Your task to perform on an android device: What's the latest video from GameSpot Reviews? Image 0: 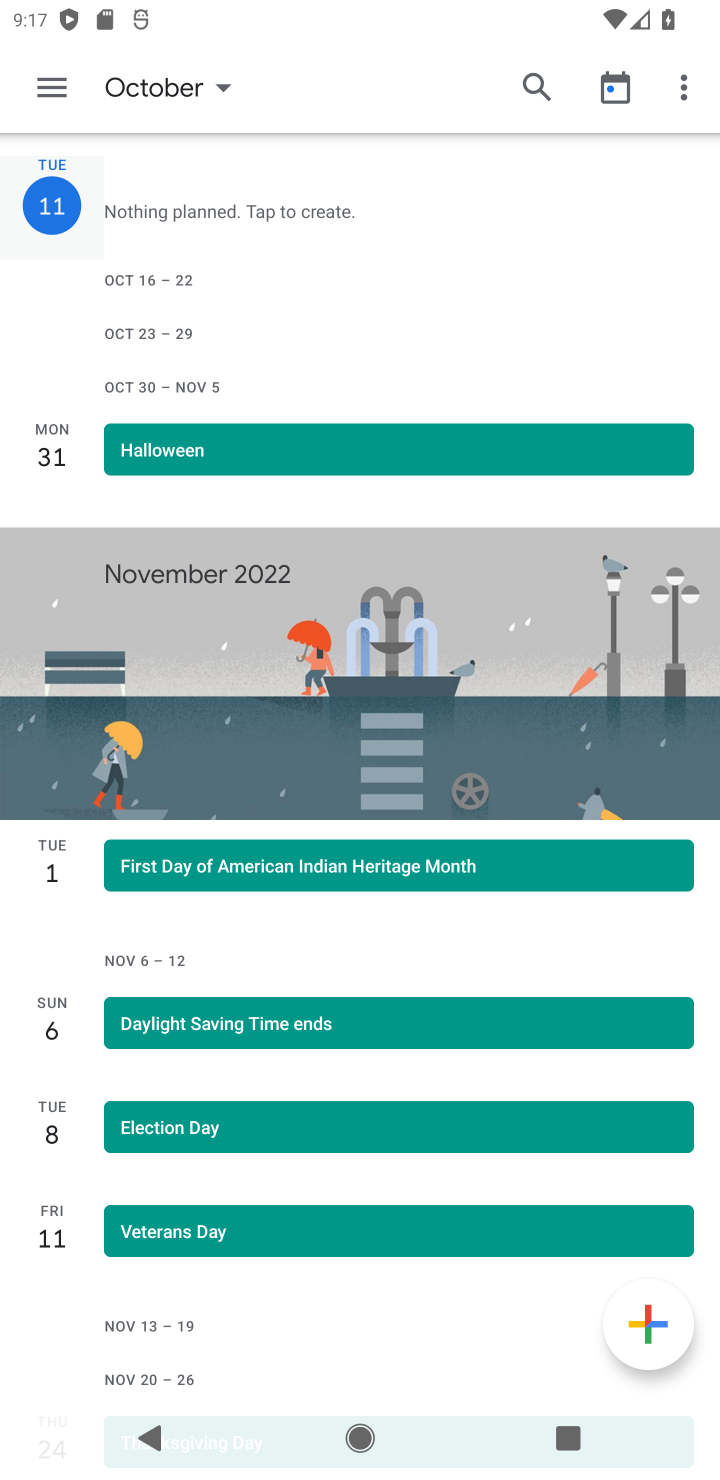
Step 0: press home button
Your task to perform on an android device: What's the latest video from GameSpot Reviews? Image 1: 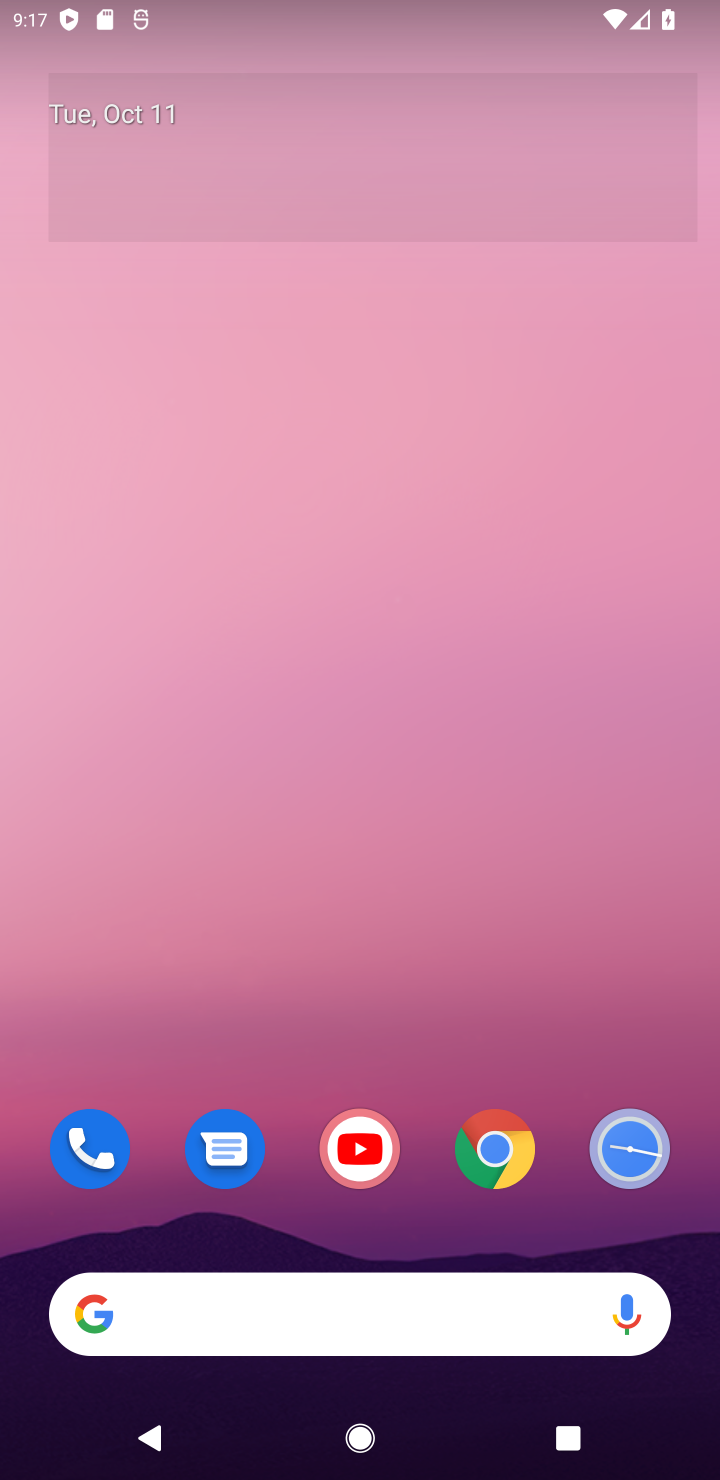
Step 1: drag from (418, 1064) to (691, 10)
Your task to perform on an android device: What's the latest video from GameSpot Reviews? Image 2: 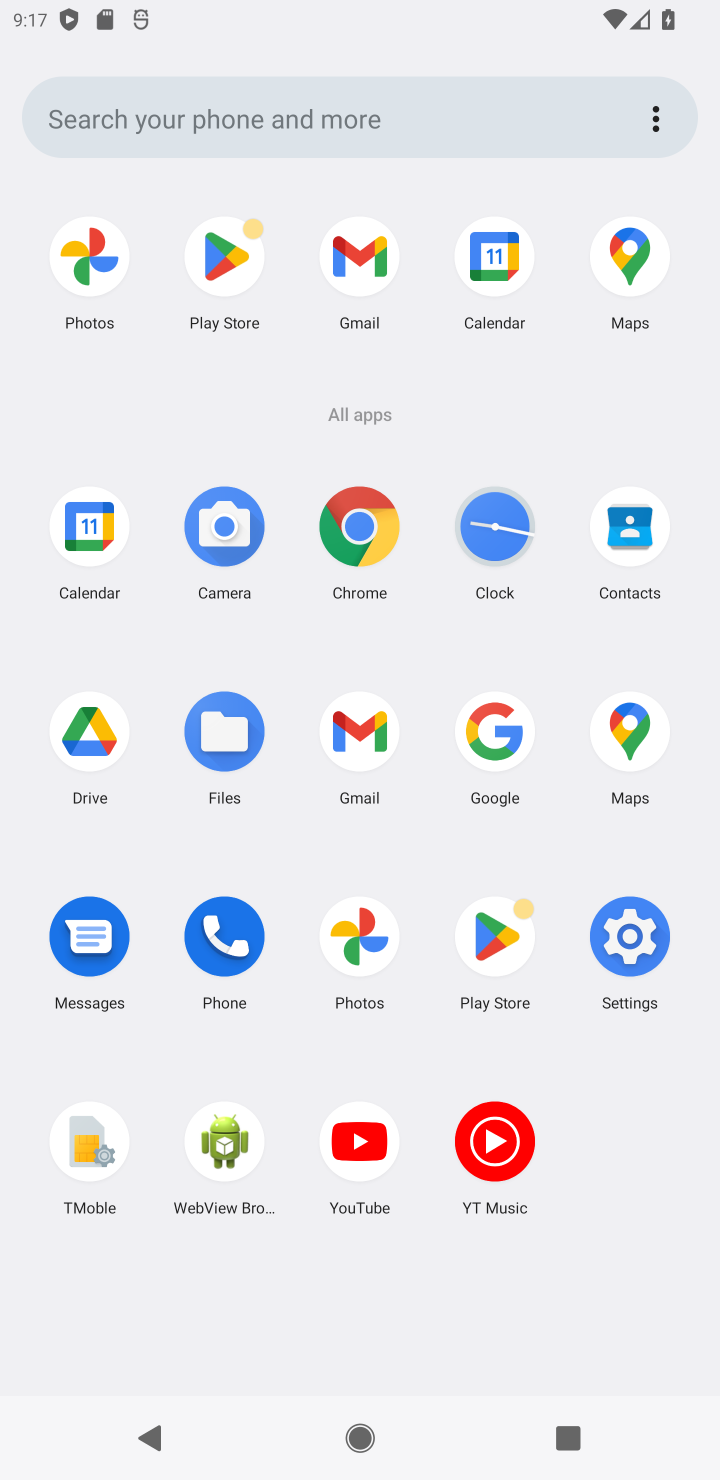
Step 2: click (371, 539)
Your task to perform on an android device: What's the latest video from GameSpot Reviews? Image 3: 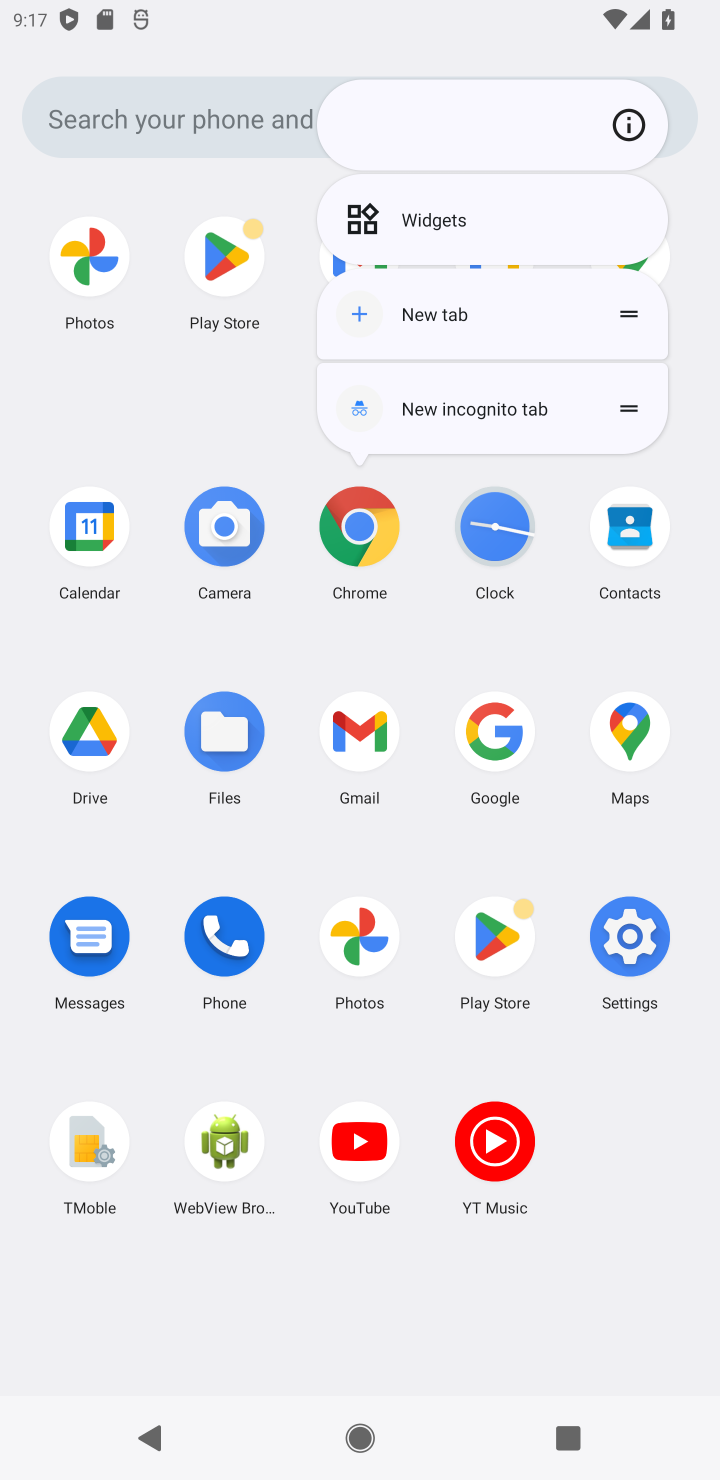
Step 3: click (364, 535)
Your task to perform on an android device: What's the latest video from GameSpot Reviews? Image 4: 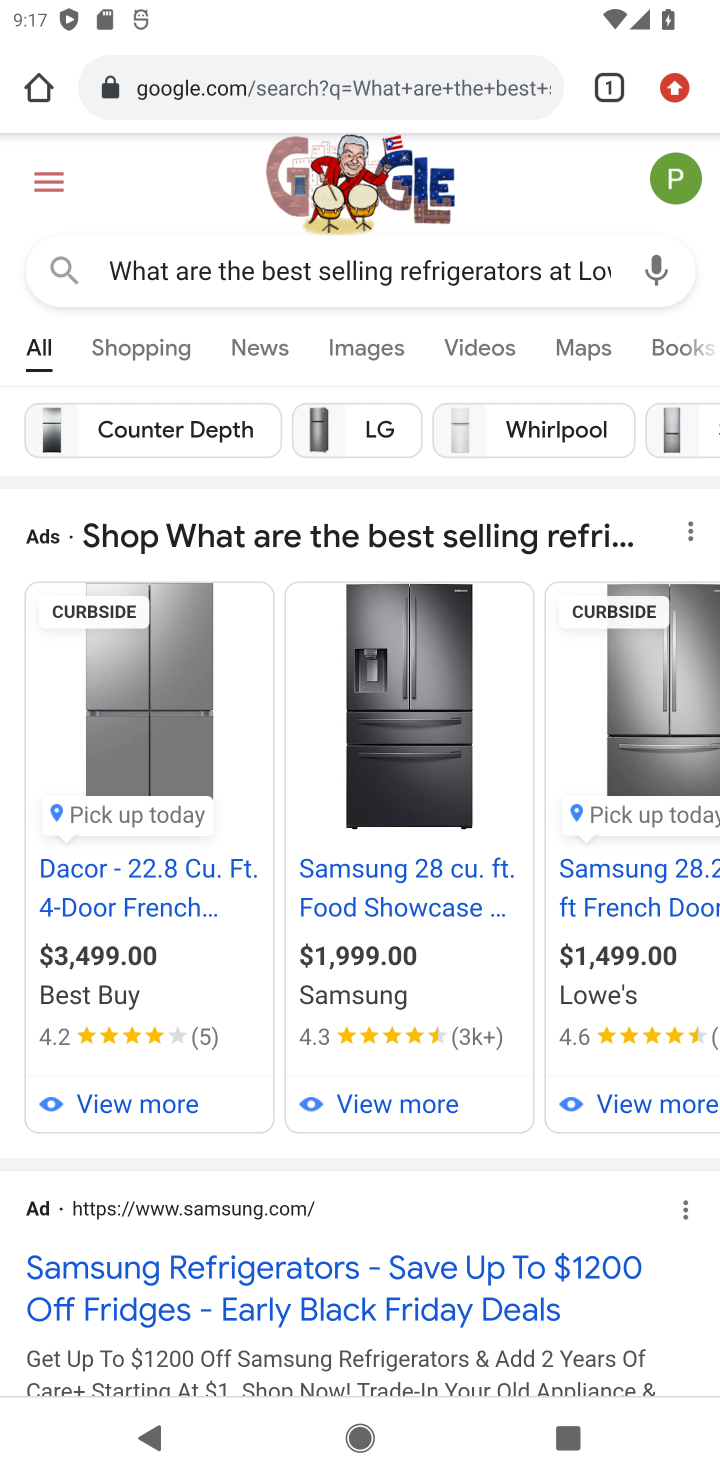
Step 4: click (405, 79)
Your task to perform on an android device: What's the latest video from GameSpot Reviews? Image 5: 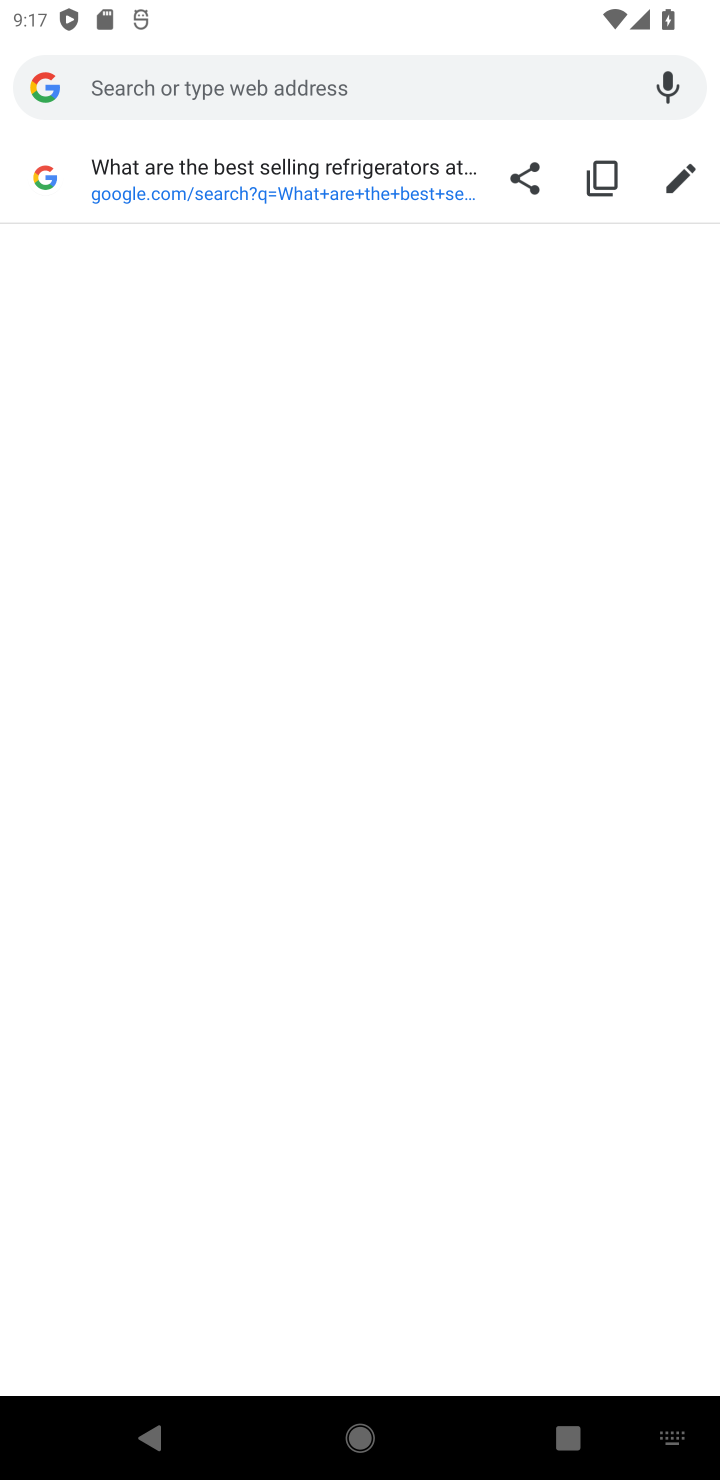
Step 5: press home button
Your task to perform on an android device: What's the latest video from GameSpot Reviews? Image 6: 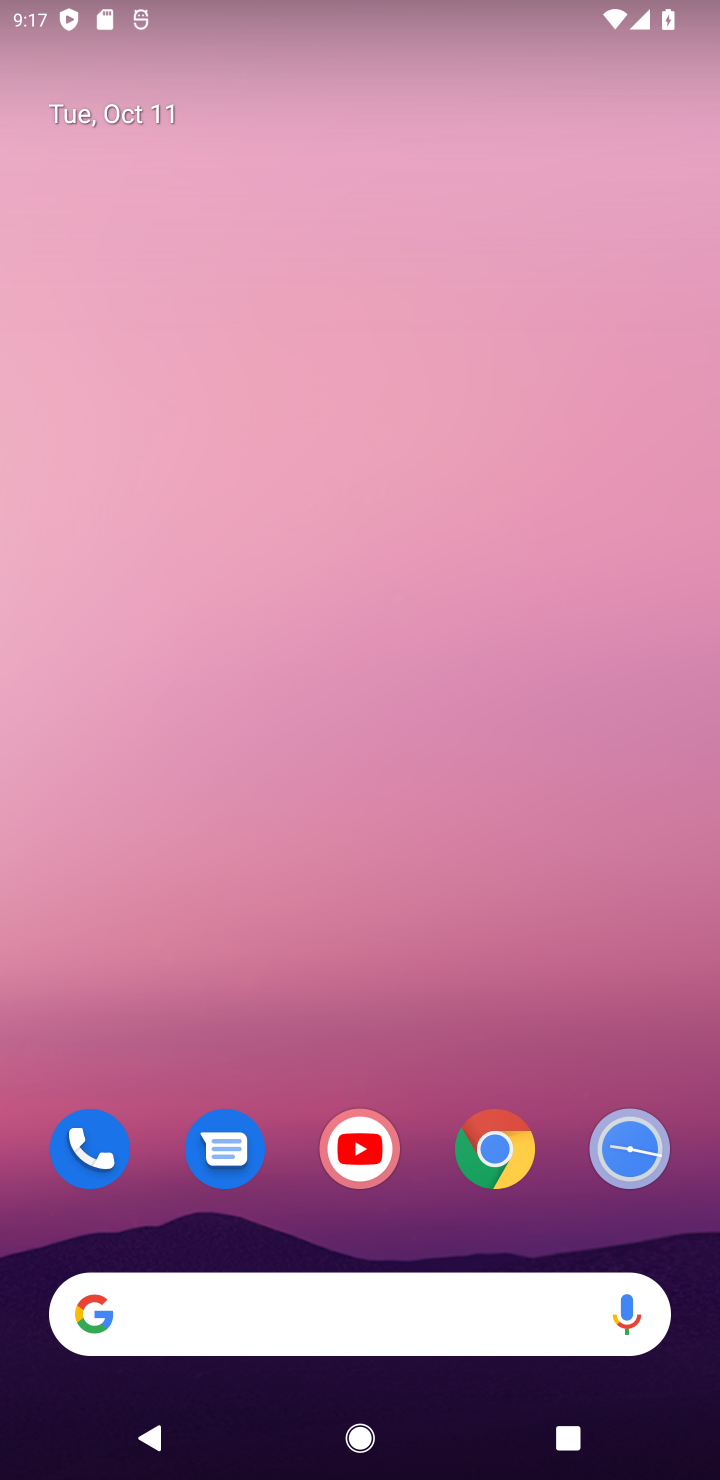
Step 6: click (360, 1160)
Your task to perform on an android device: What's the latest video from GameSpot Reviews? Image 7: 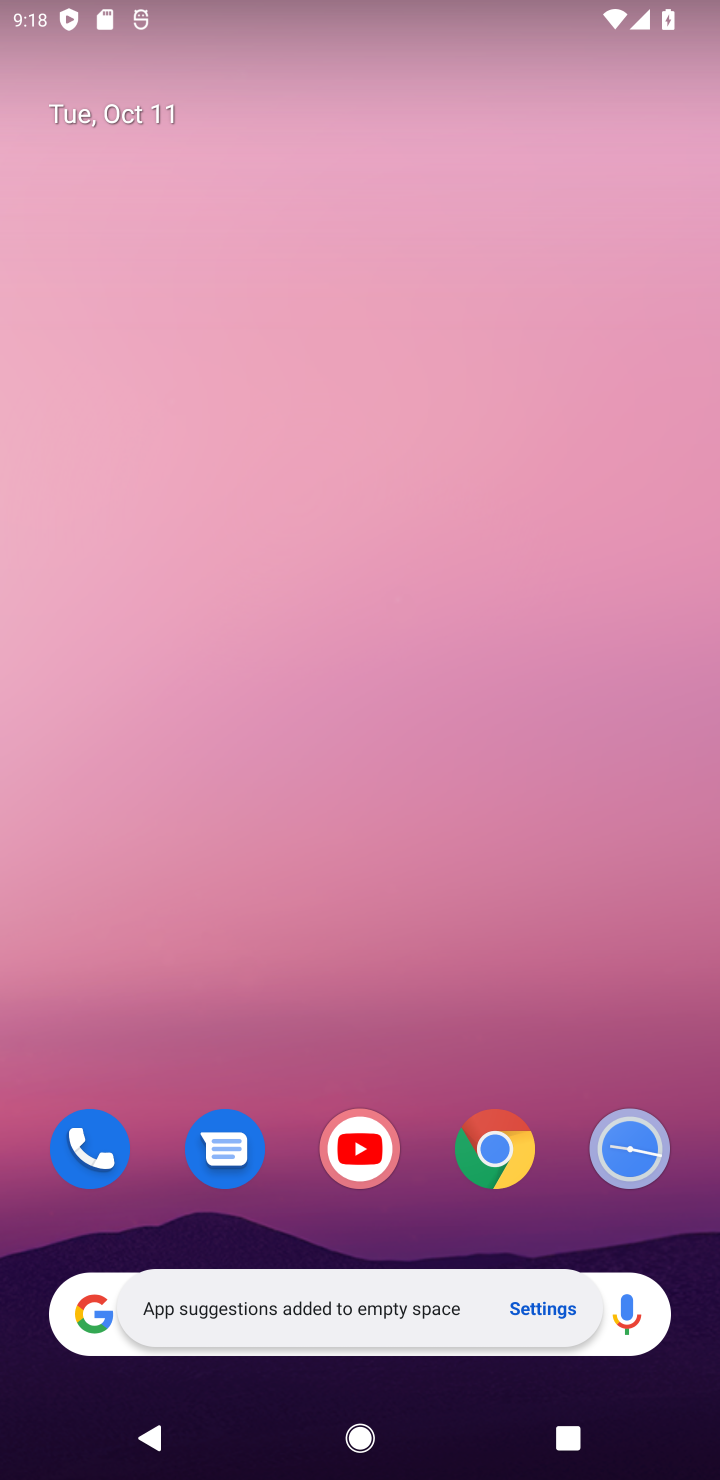
Step 7: click (357, 1154)
Your task to perform on an android device: What's the latest video from GameSpot Reviews? Image 8: 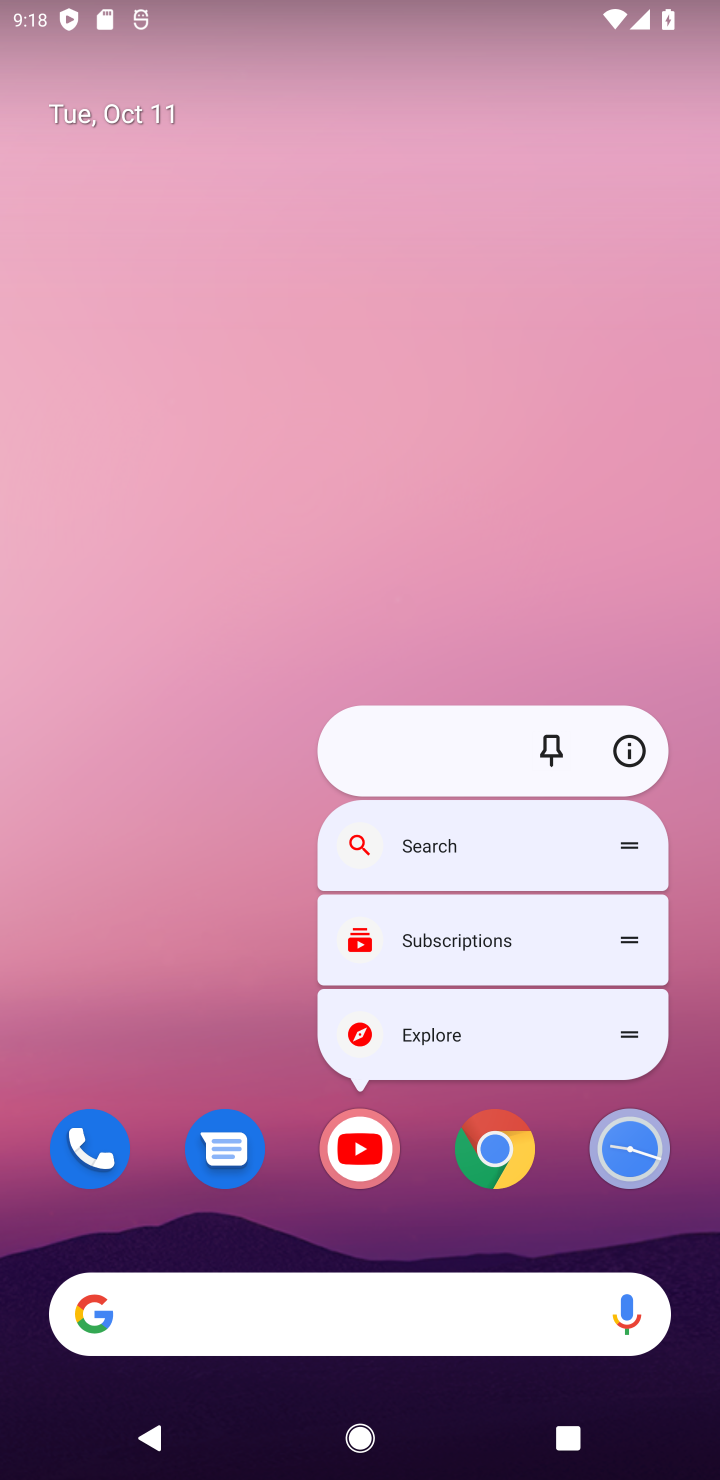
Step 8: click (361, 1157)
Your task to perform on an android device: What's the latest video from GameSpot Reviews? Image 9: 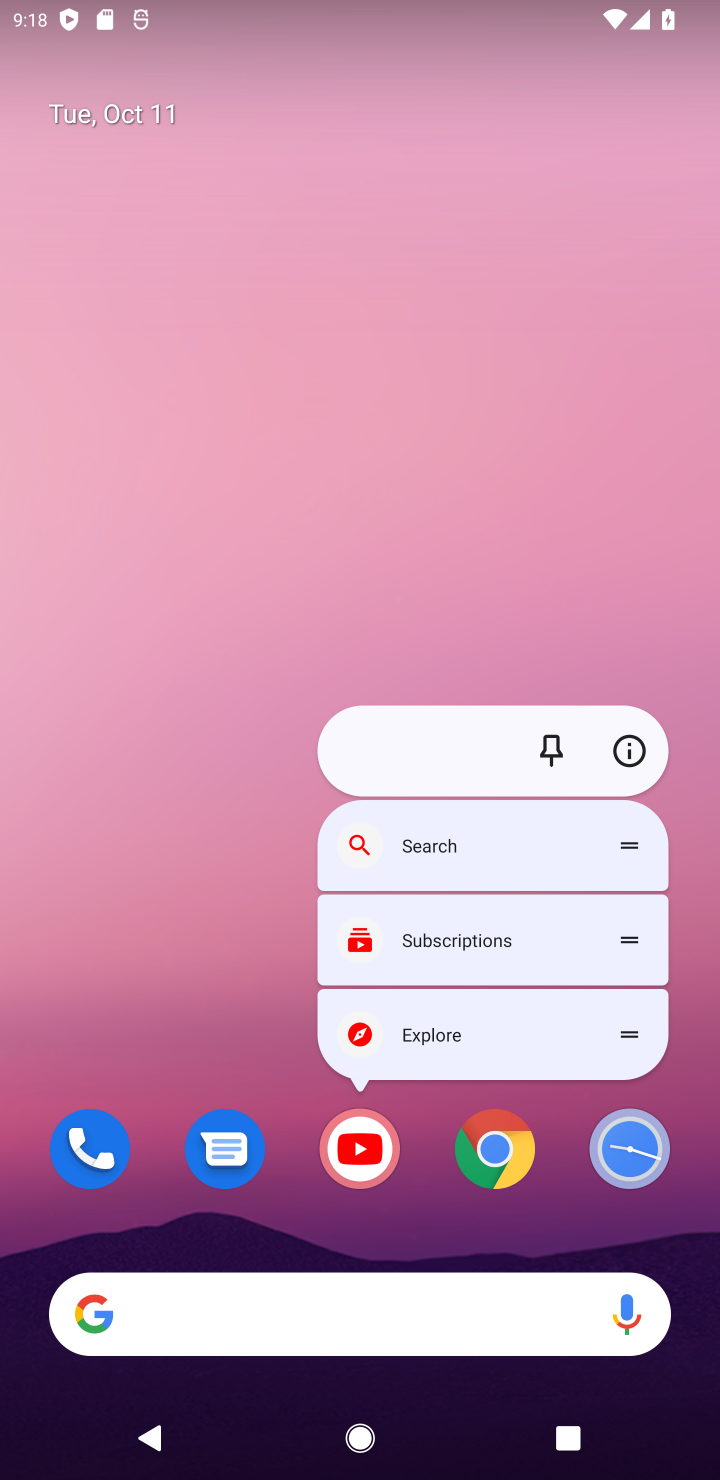
Step 9: click (353, 1171)
Your task to perform on an android device: What's the latest video from GameSpot Reviews? Image 10: 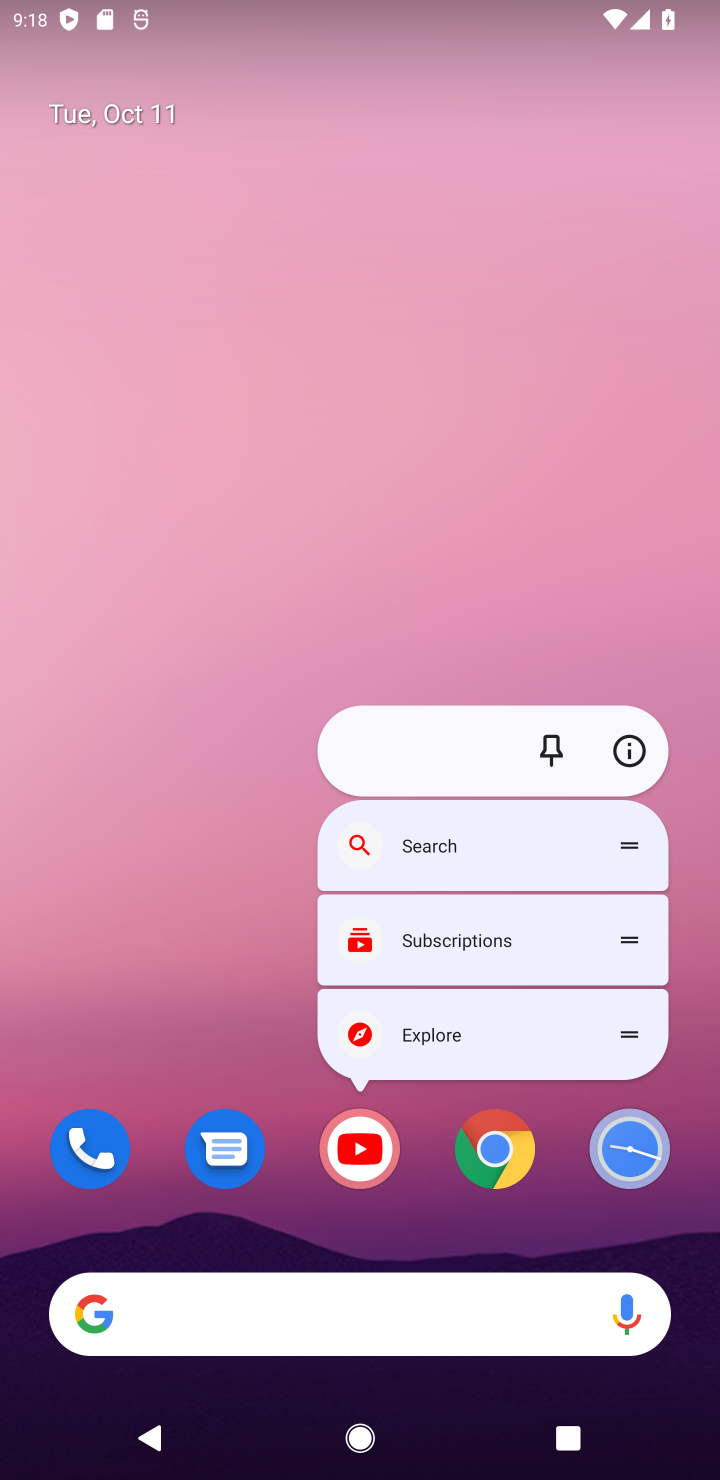
Step 10: click (363, 1149)
Your task to perform on an android device: What's the latest video from GameSpot Reviews? Image 11: 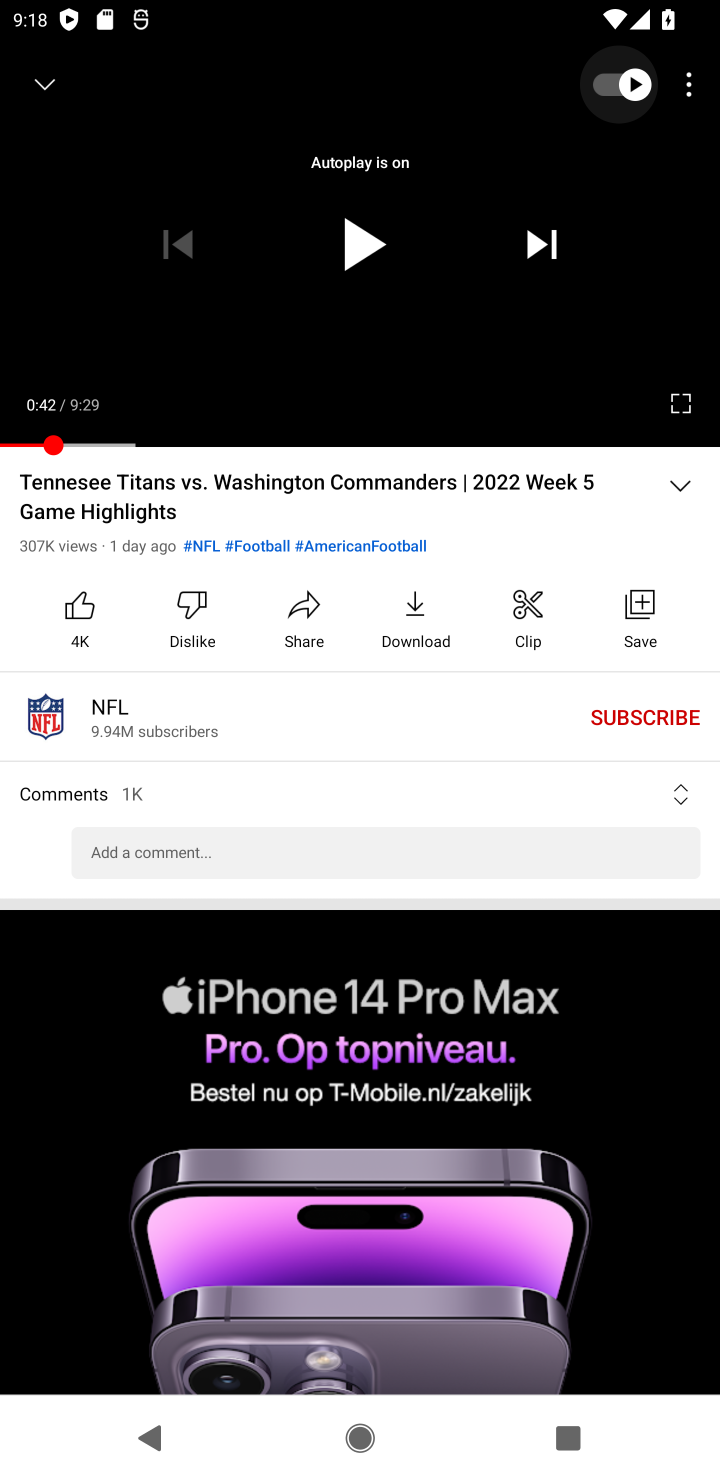
Step 11: press back button
Your task to perform on an android device: What's the latest video from GameSpot Reviews? Image 12: 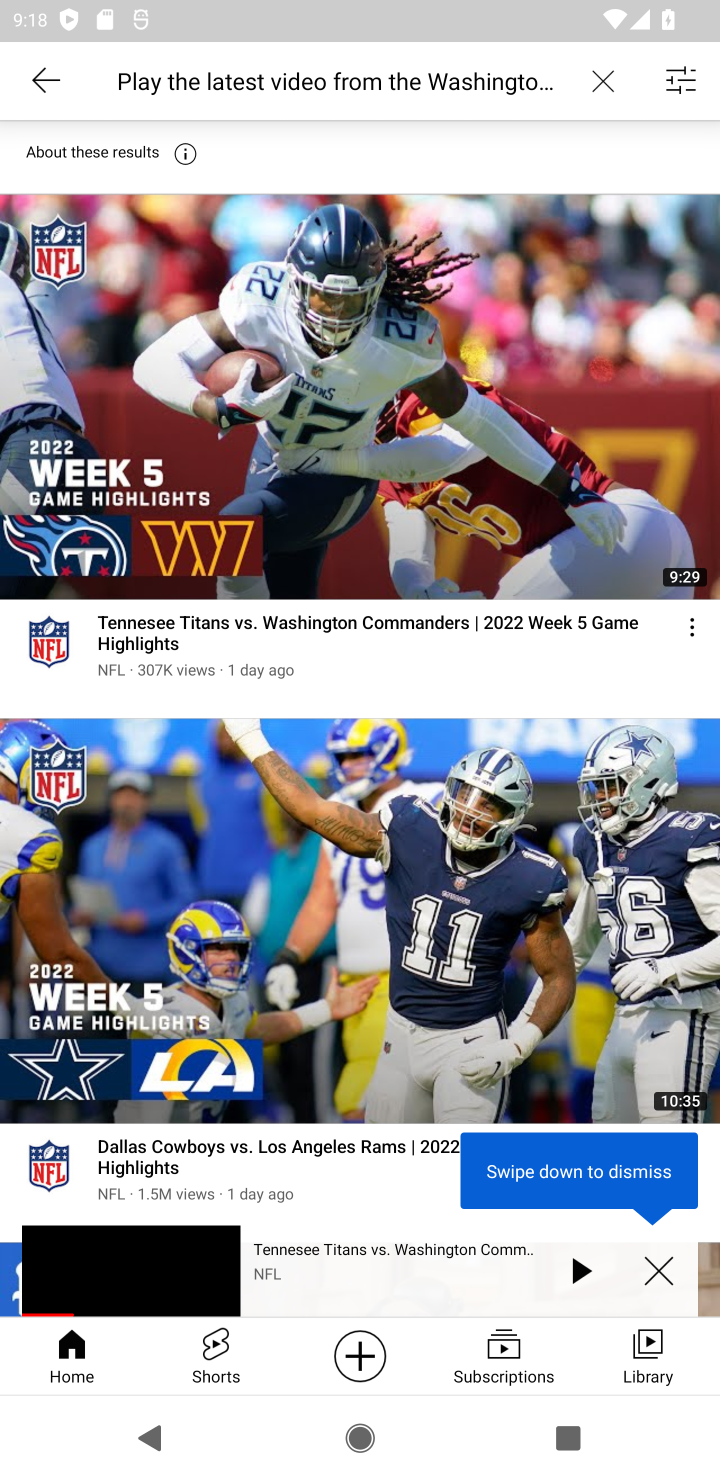
Step 12: click (619, 73)
Your task to perform on an android device: What's the latest video from GameSpot Reviews? Image 13: 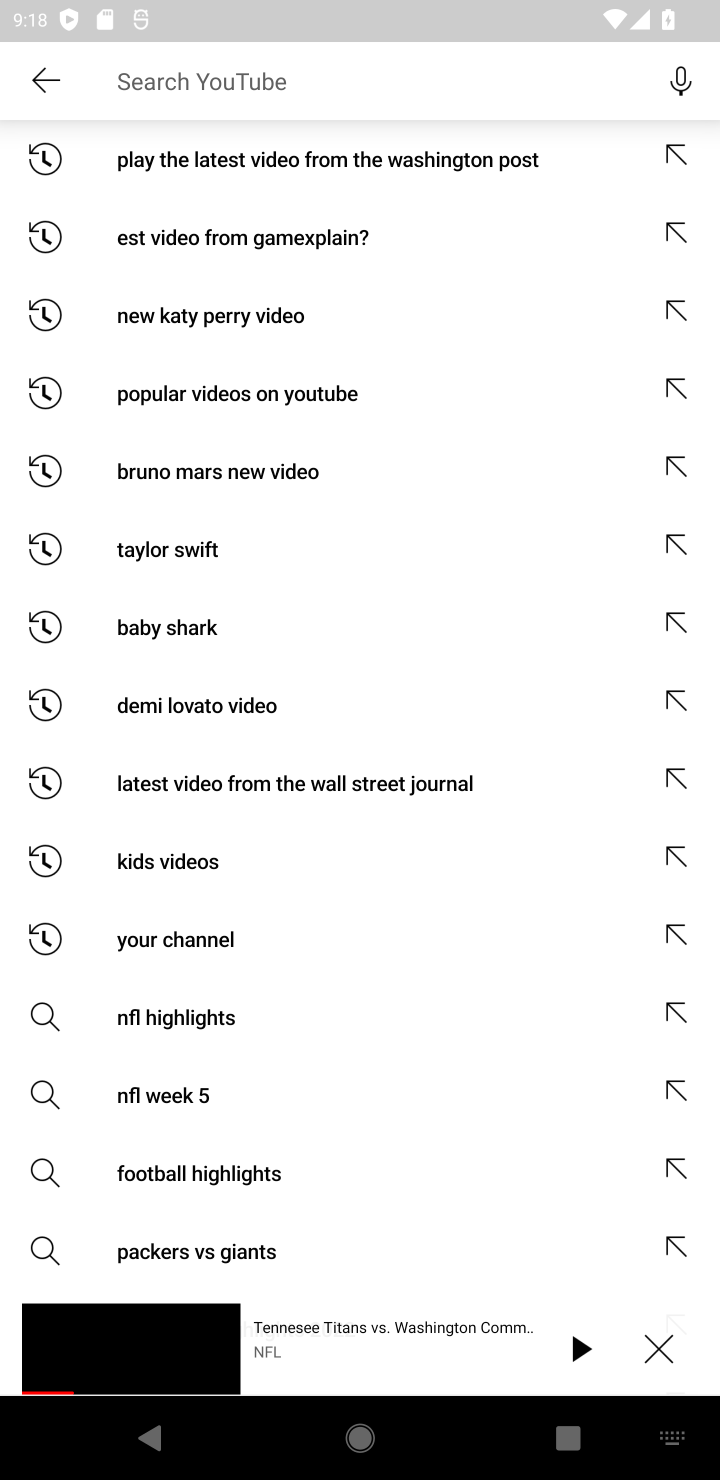
Step 13: click (666, 1357)
Your task to perform on an android device: What's the latest video from GameSpot Reviews? Image 14: 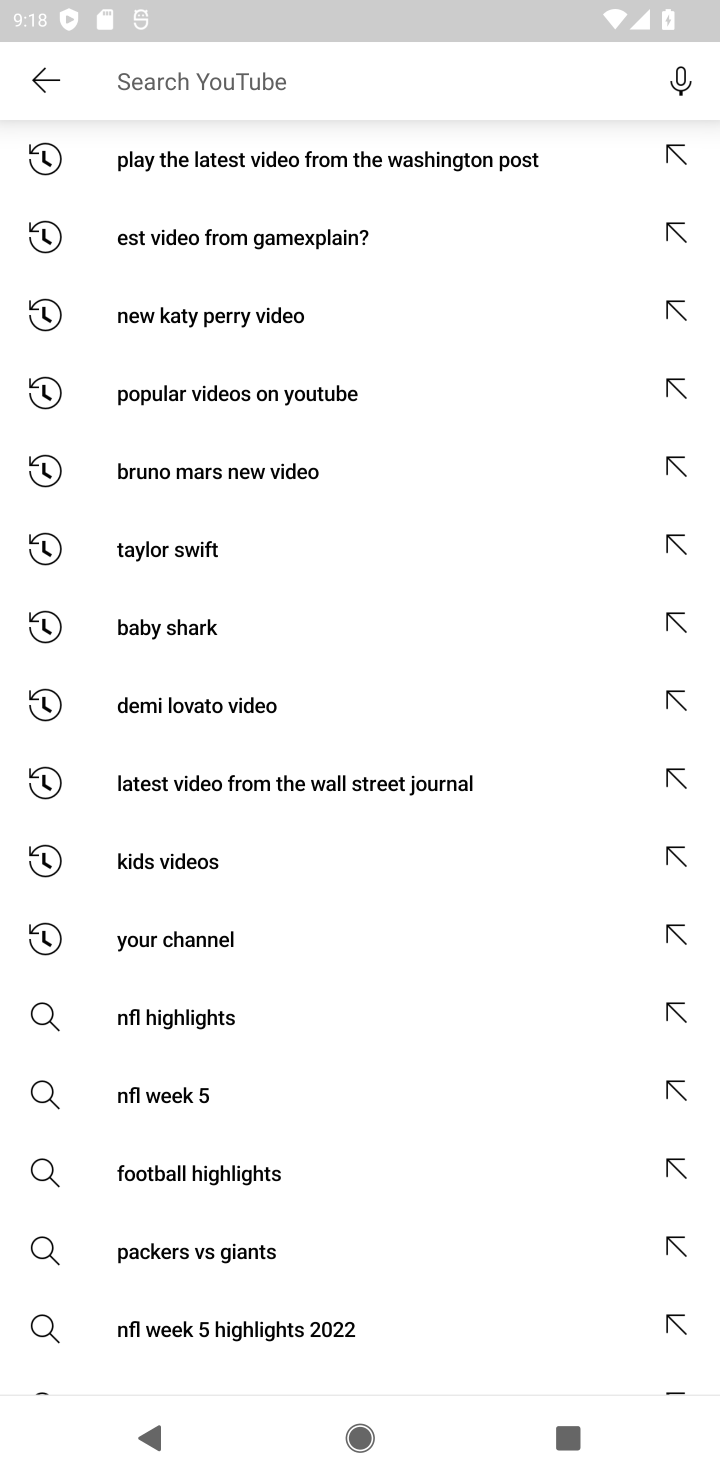
Step 14: type "What's the latest video from GameSpot Reviews?"
Your task to perform on an android device: What's the latest video from GameSpot Reviews? Image 15: 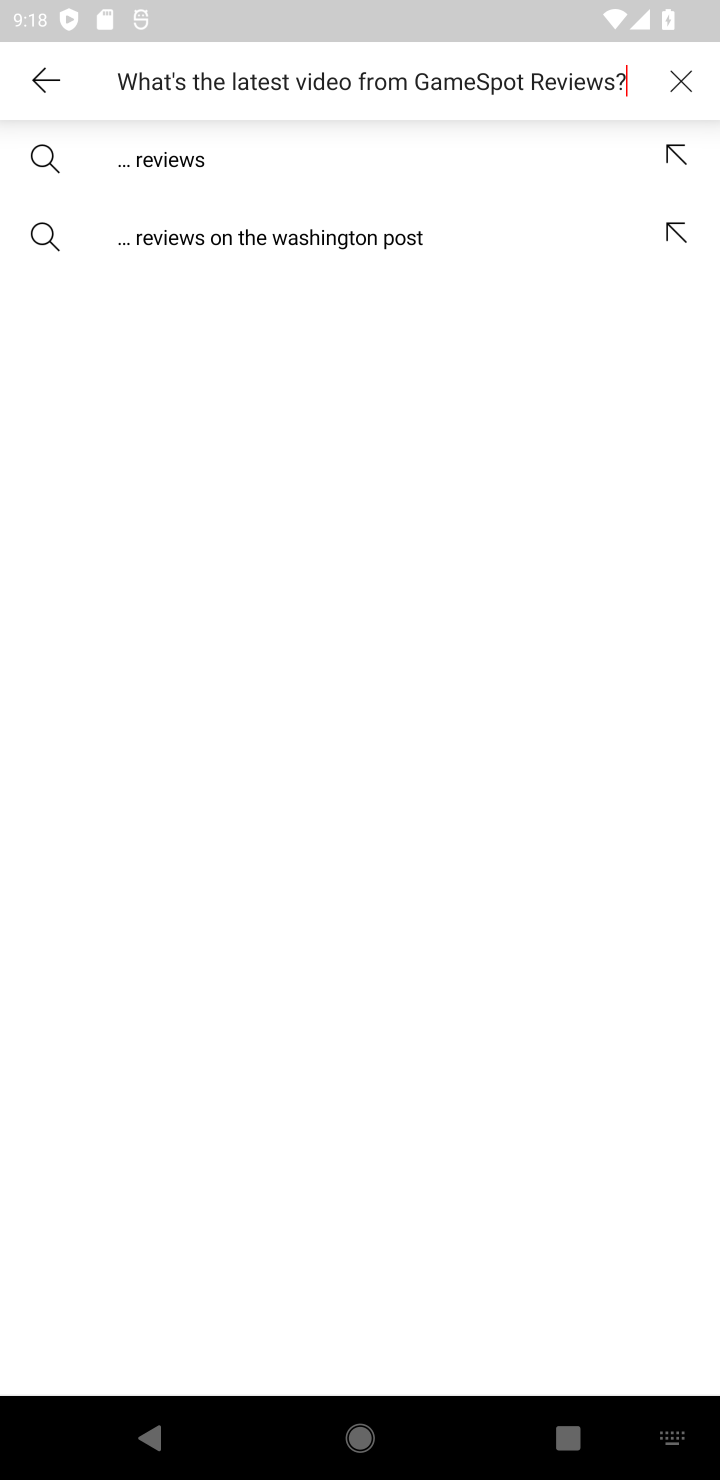
Step 15: press enter
Your task to perform on an android device: What's the latest video from GameSpot Reviews? Image 16: 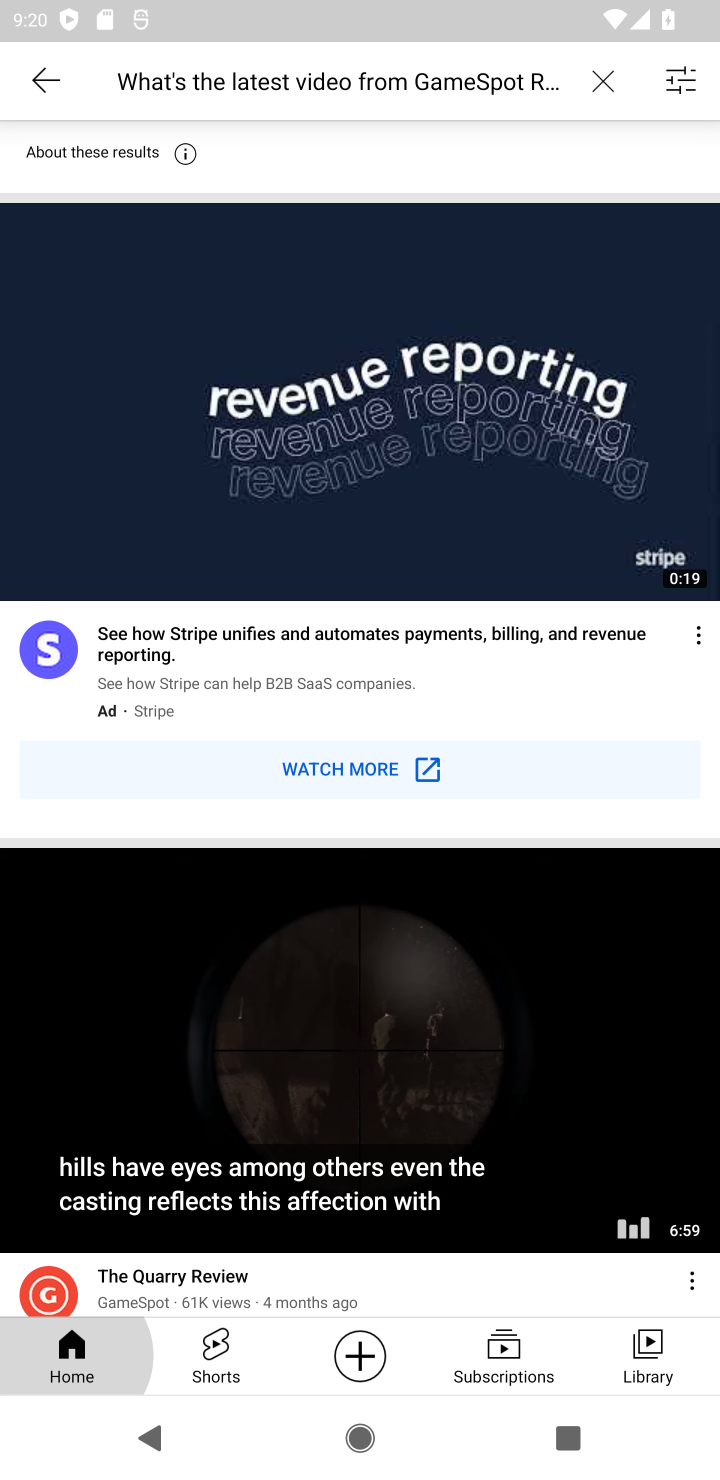
Step 16: click (454, 506)
Your task to perform on an android device: What's the latest video from GameSpot Reviews? Image 17: 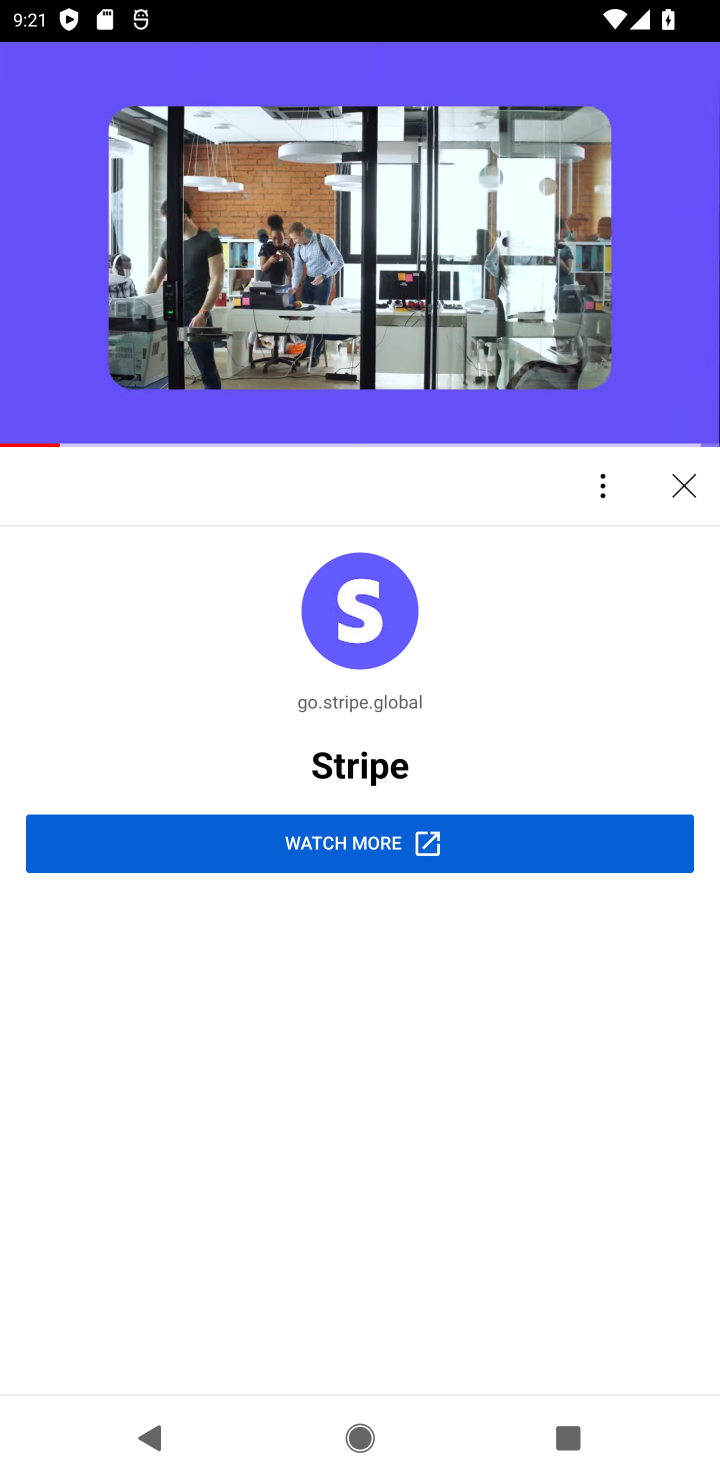
Step 17: task complete